Your task to perform on an android device: Open Google Maps Image 0: 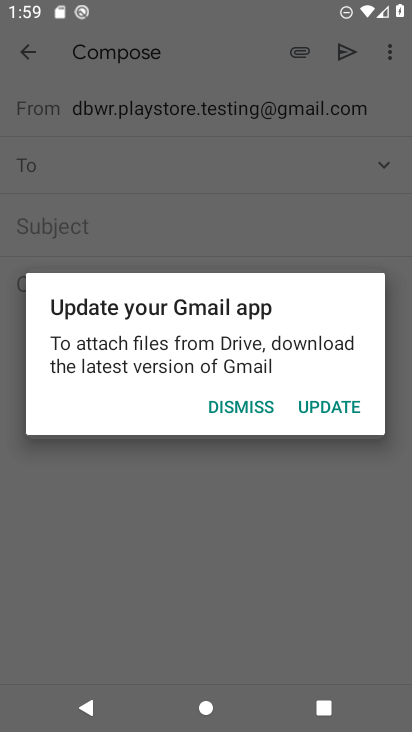
Step 0: press home button
Your task to perform on an android device: Open Google Maps Image 1: 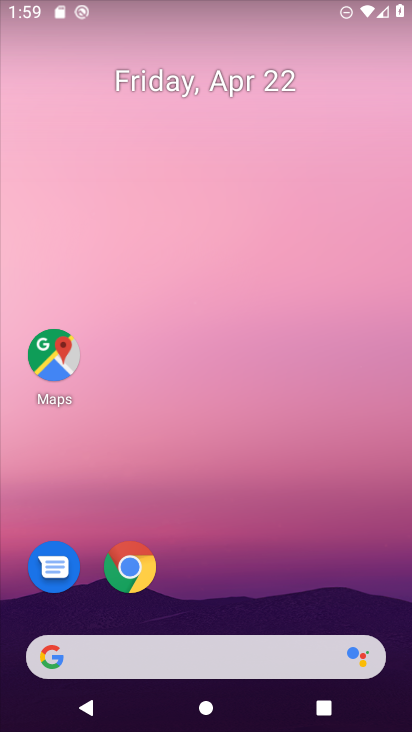
Step 1: click (55, 359)
Your task to perform on an android device: Open Google Maps Image 2: 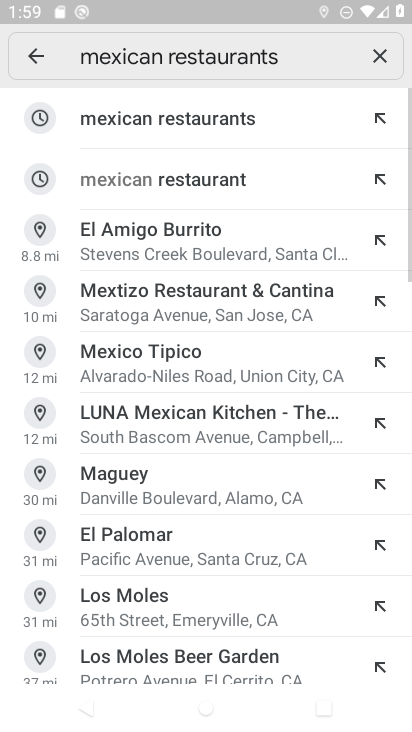
Step 2: task complete